Your task to perform on an android device: Is it going to rain tomorrow? Image 0: 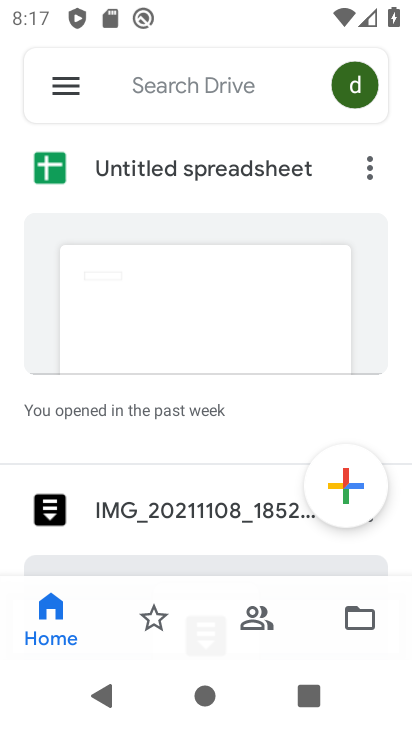
Step 0: press home button
Your task to perform on an android device: Is it going to rain tomorrow? Image 1: 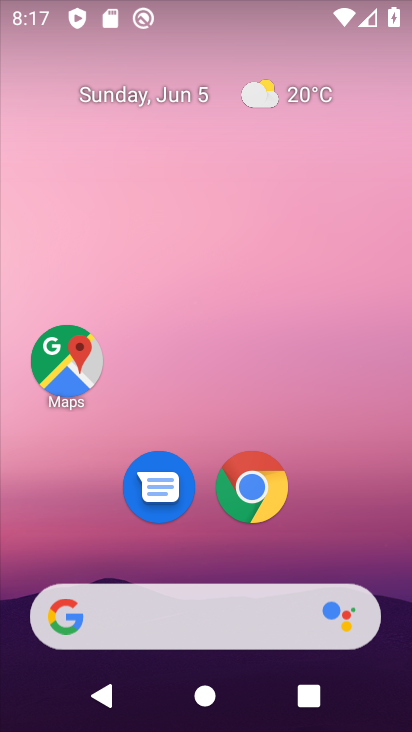
Step 1: click (251, 478)
Your task to perform on an android device: Is it going to rain tomorrow? Image 2: 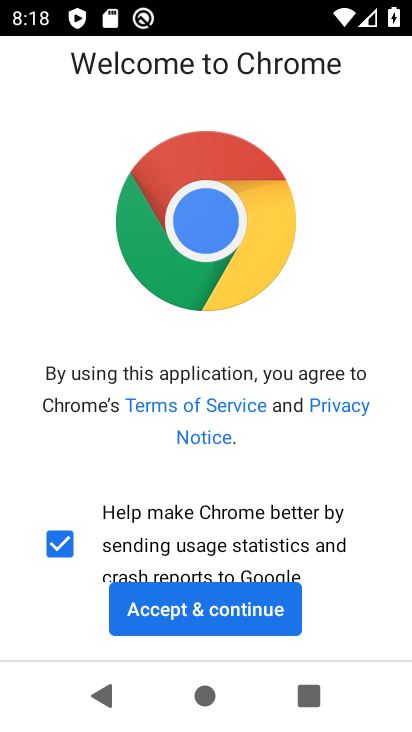
Step 2: click (238, 614)
Your task to perform on an android device: Is it going to rain tomorrow? Image 3: 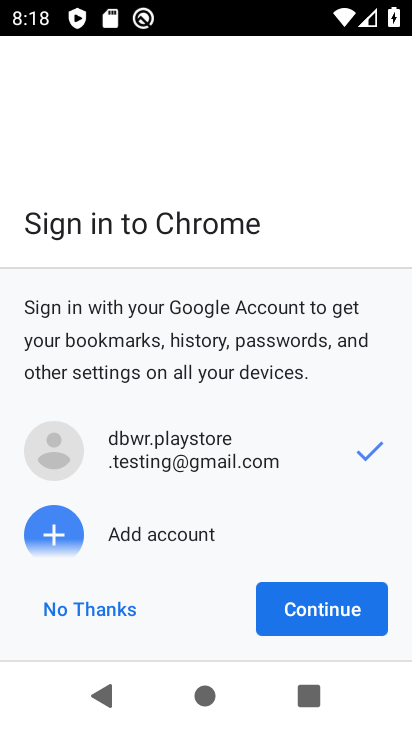
Step 3: click (331, 595)
Your task to perform on an android device: Is it going to rain tomorrow? Image 4: 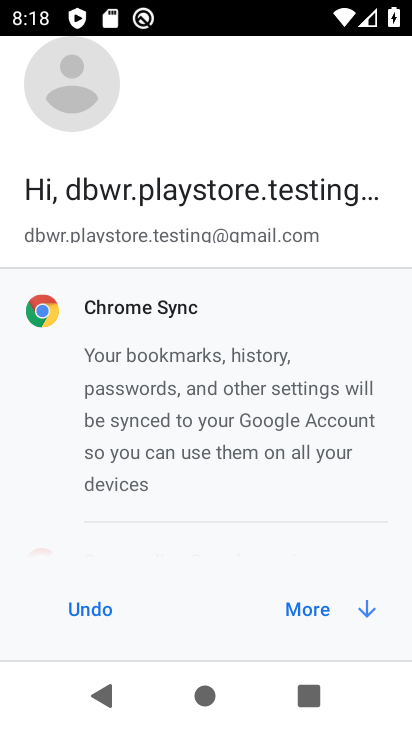
Step 4: click (328, 601)
Your task to perform on an android device: Is it going to rain tomorrow? Image 5: 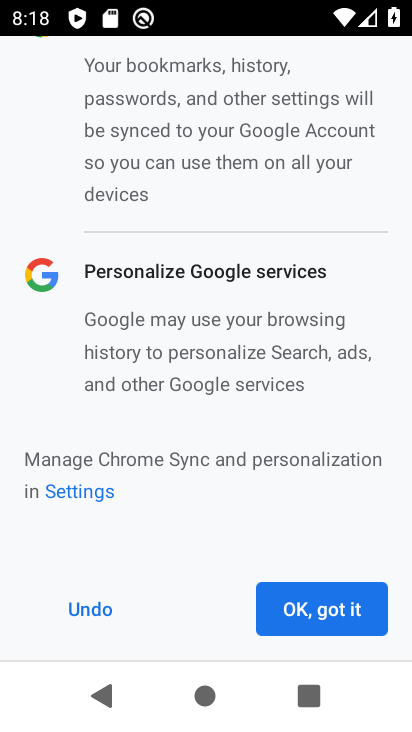
Step 5: click (330, 607)
Your task to perform on an android device: Is it going to rain tomorrow? Image 6: 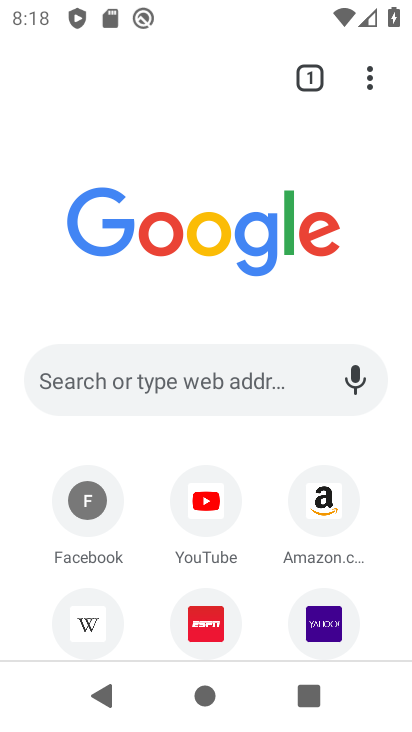
Step 6: click (156, 388)
Your task to perform on an android device: Is it going to rain tomorrow? Image 7: 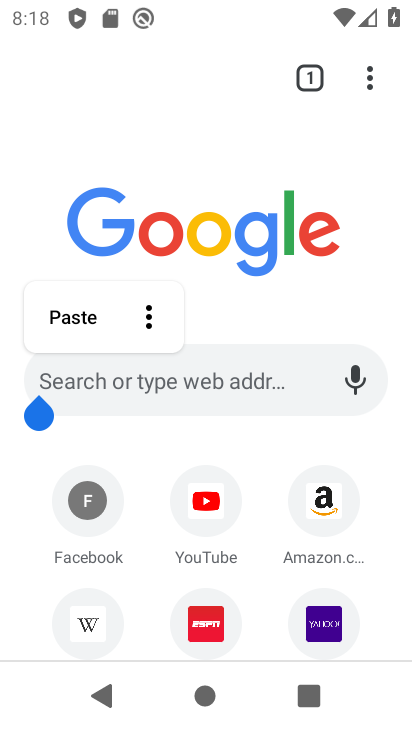
Step 7: type "Is it going to rain tomorrow?"
Your task to perform on an android device: Is it going to rain tomorrow? Image 8: 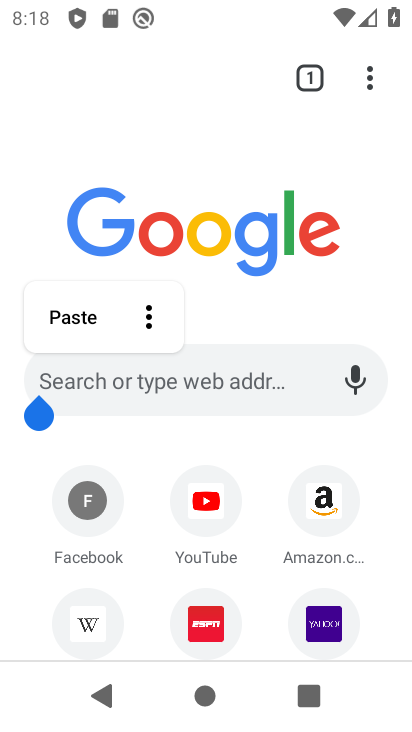
Step 8: click (172, 379)
Your task to perform on an android device: Is it going to rain tomorrow? Image 9: 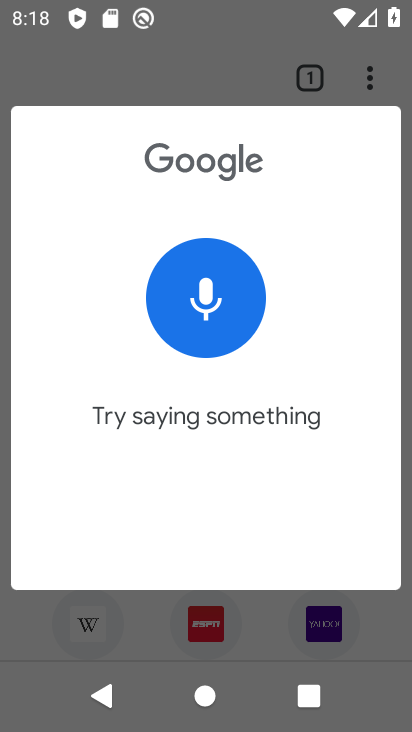
Step 9: press back button
Your task to perform on an android device: Is it going to rain tomorrow? Image 10: 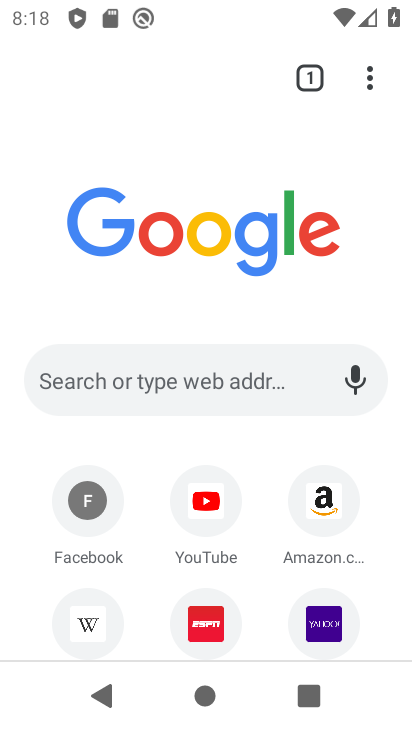
Step 10: click (213, 372)
Your task to perform on an android device: Is it going to rain tomorrow? Image 11: 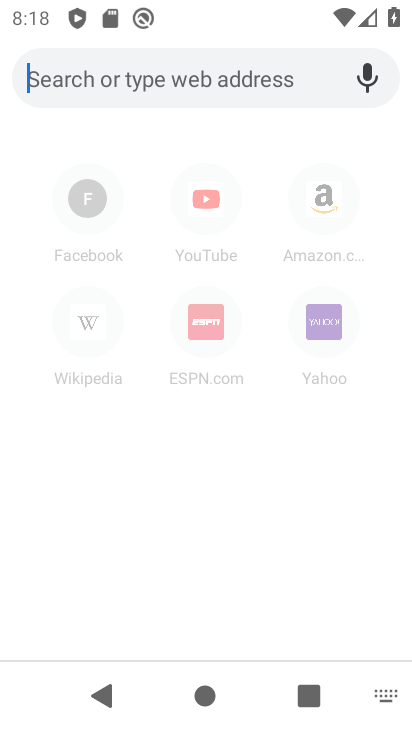
Step 11: type "Is it going to rain tomorrow?"
Your task to perform on an android device: Is it going to rain tomorrow? Image 12: 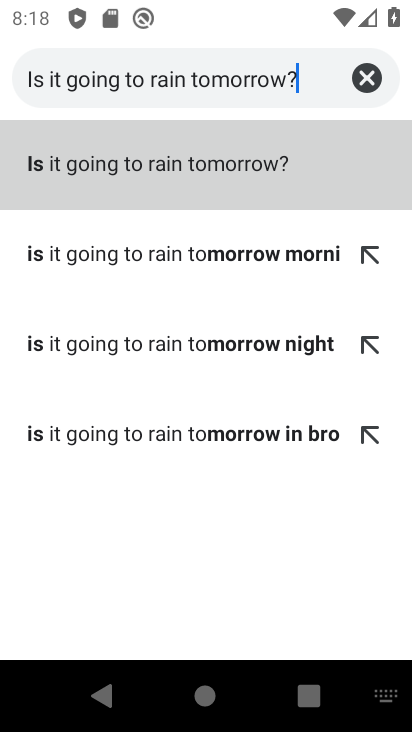
Step 12: click (169, 147)
Your task to perform on an android device: Is it going to rain tomorrow? Image 13: 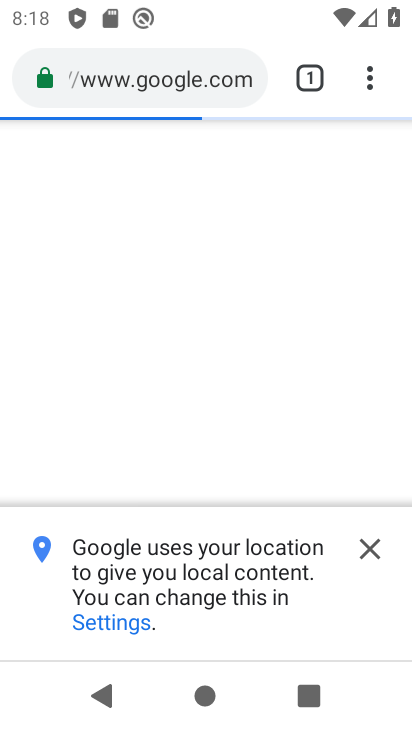
Step 13: task complete